Your task to perform on an android device: Open the calendar app, open the side menu, and click the "Day" option Image 0: 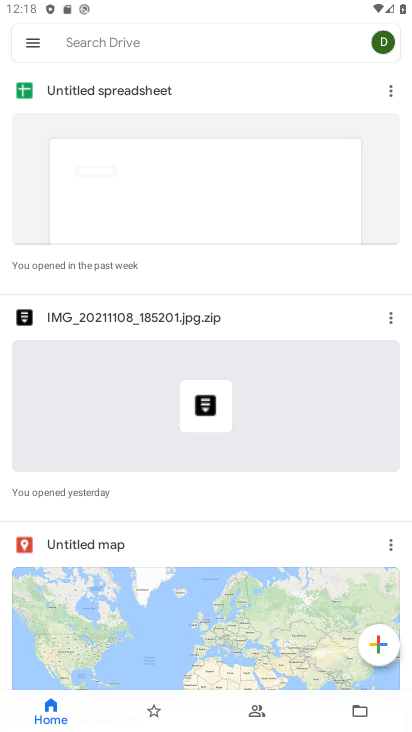
Step 0: press home button
Your task to perform on an android device: Open the calendar app, open the side menu, and click the "Day" option Image 1: 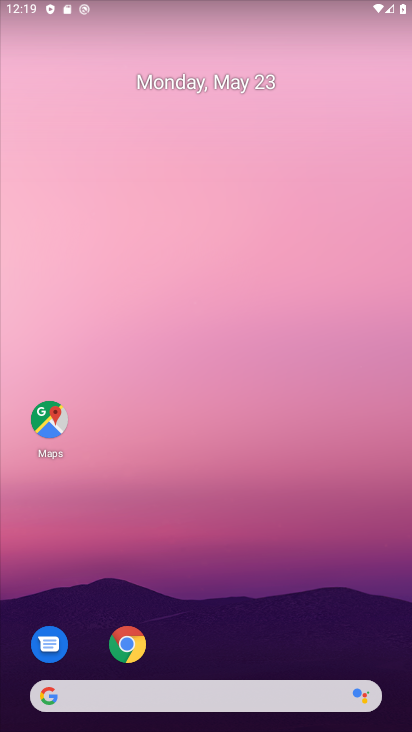
Step 1: click (254, 82)
Your task to perform on an android device: Open the calendar app, open the side menu, and click the "Day" option Image 2: 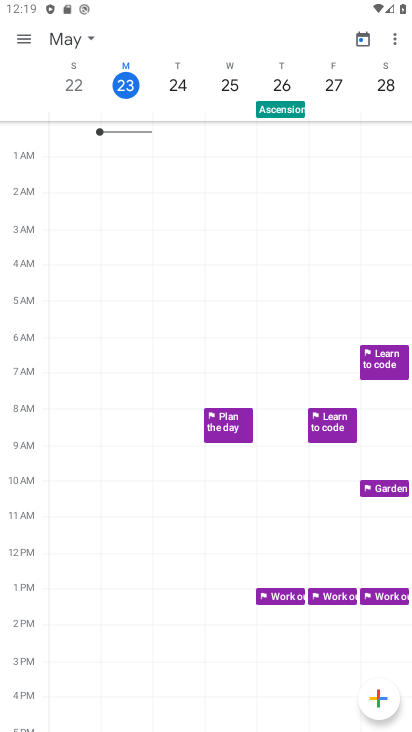
Step 2: click (19, 33)
Your task to perform on an android device: Open the calendar app, open the side menu, and click the "Day" option Image 3: 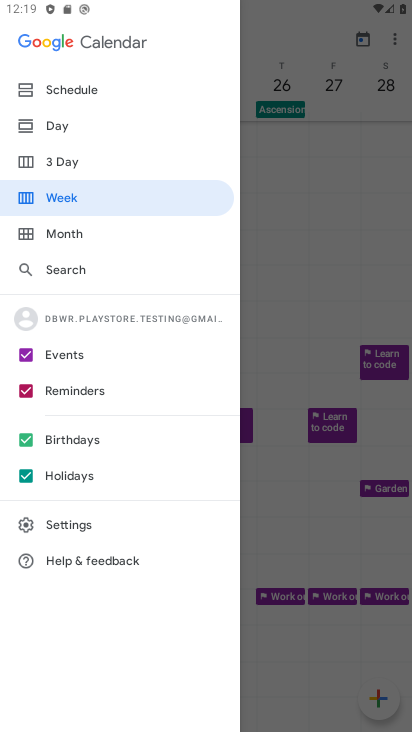
Step 3: click (69, 125)
Your task to perform on an android device: Open the calendar app, open the side menu, and click the "Day" option Image 4: 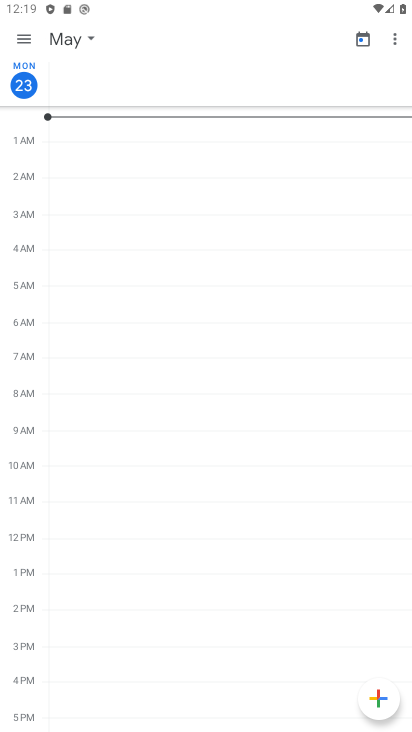
Step 4: task complete